Your task to perform on an android device: toggle priority inbox in the gmail app Image 0: 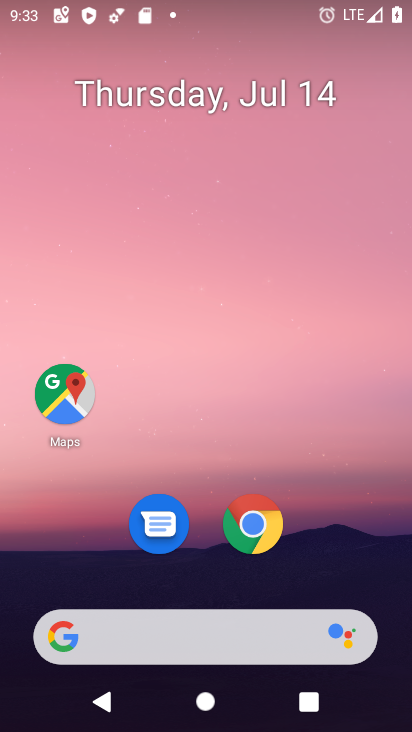
Step 0: drag from (343, 522) to (274, 9)
Your task to perform on an android device: toggle priority inbox in the gmail app Image 1: 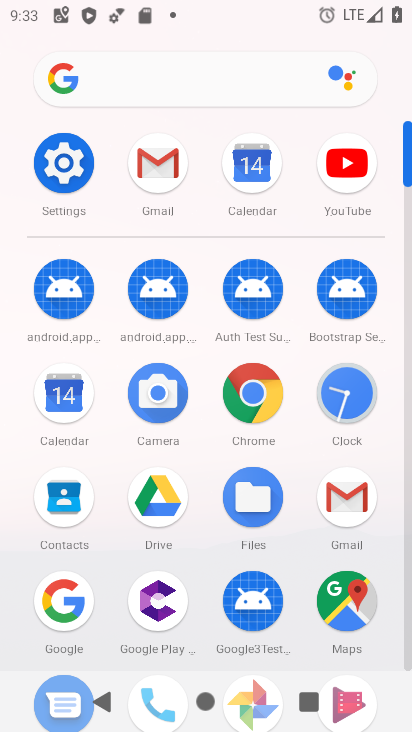
Step 1: click (149, 179)
Your task to perform on an android device: toggle priority inbox in the gmail app Image 2: 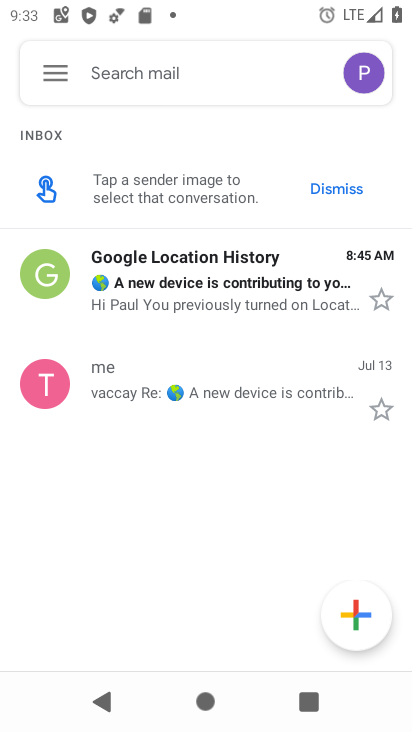
Step 2: click (55, 67)
Your task to perform on an android device: toggle priority inbox in the gmail app Image 3: 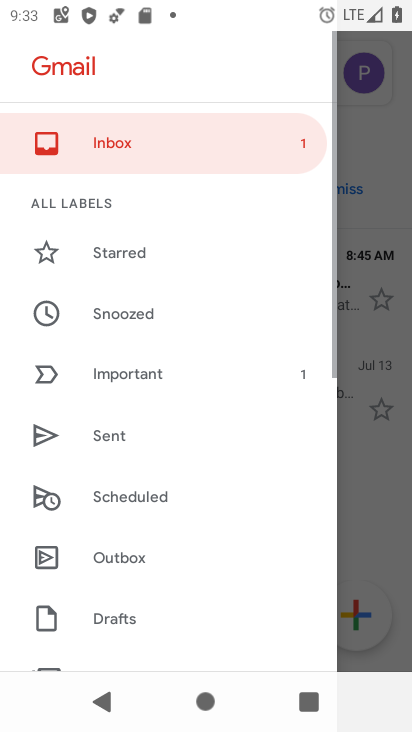
Step 3: drag from (145, 490) to (179, 84)
Your task to perform on an android device: toggle priority inbox in the gmail app Image 4: 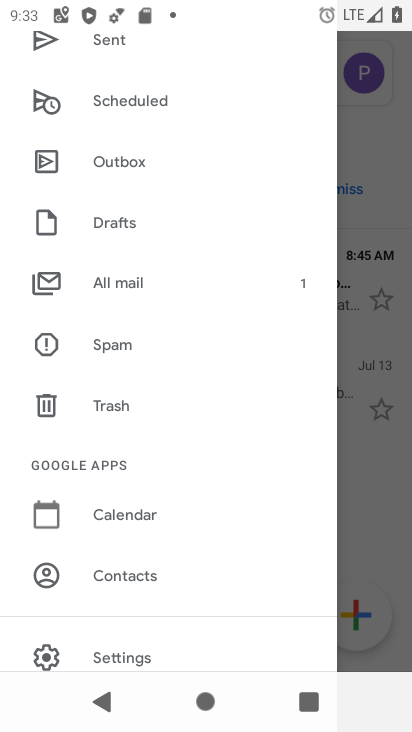
Step 4: click (146, 657)
Your task to perform on an android device: toggle priority inbox in the gmail app Image 5: 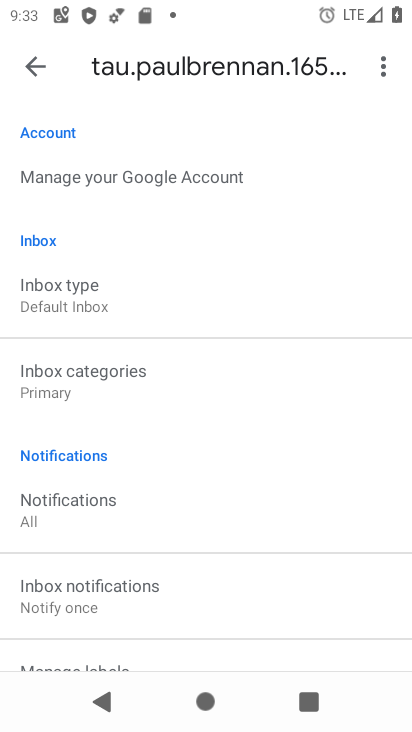
Step 5: click (83, 295)
Your task to perform on an android device: toggle priority inbox in the gmail app Image 6: 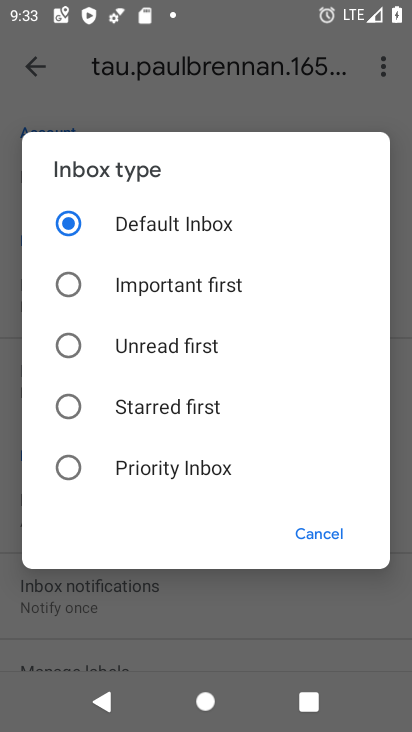
Step 6: click (77, 464)
Your task to perform on an android device: toggle priority inbox in the gmail app Image 7: 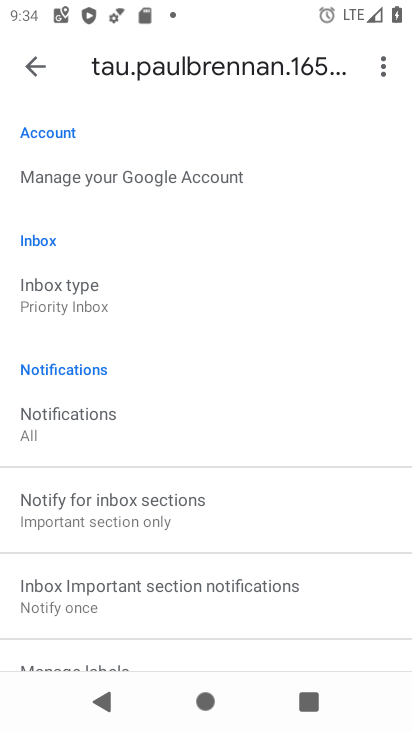
Step 7: task complete